Your task to perform on an android device: turn off smart reply in the gmail app Image 0: 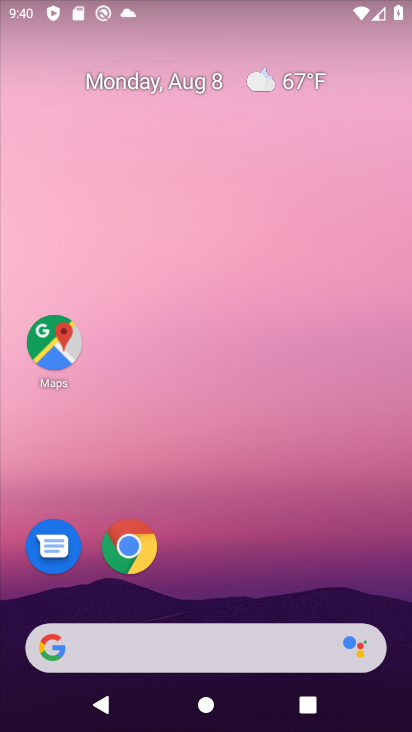
Step 0: drag from (288, 514) to (360, 192)
Your task to perform on an android device: turn off smart reply in the gmail app Image 1: 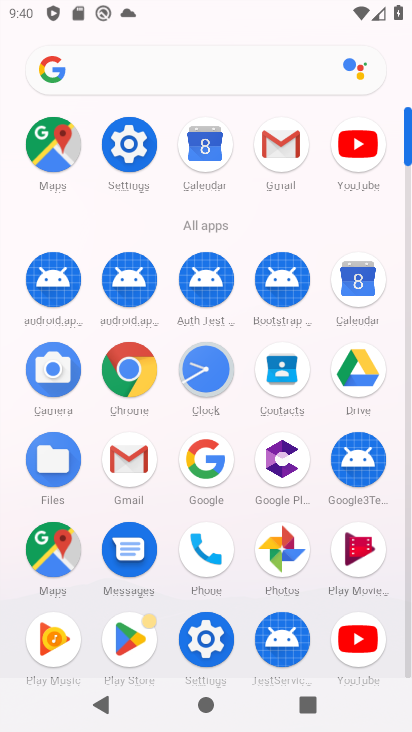
Step 1: click (269, 154)
Your task to perform on an android device: turn off smart reply in the gmail app Image 2: 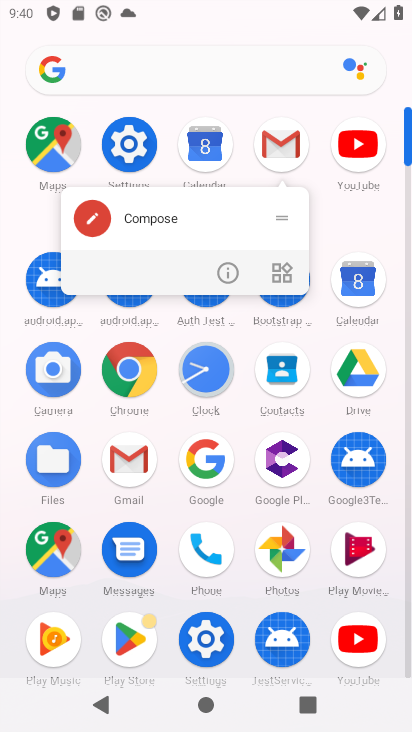
Step 2: task complete